Your task to perform on an android device: manage bookmarks in the chrome app Image 0: 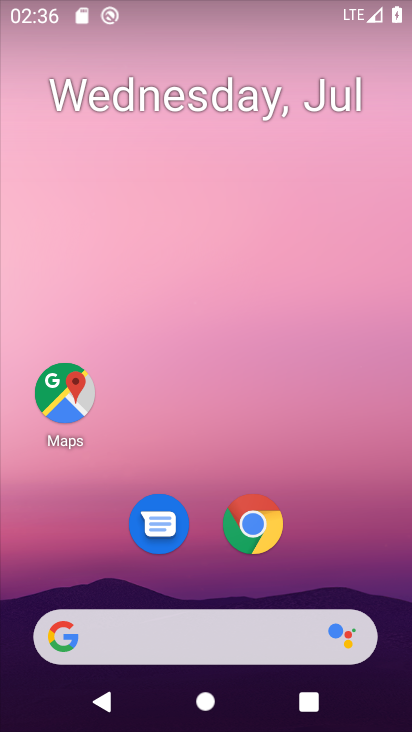
Step 0: click (263, 536)
Your task to perform on an android device: manage bookmarks in the chrome app Image 1: 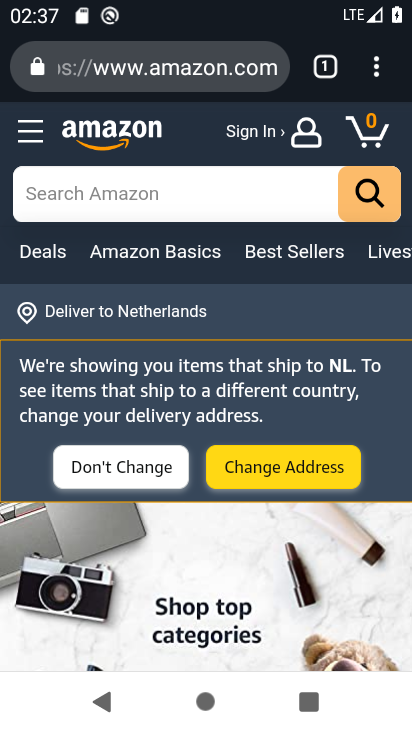
Step 1: click (373, 70)
Your task to perform on an android device: manage bookmarks in the chrome app Image 2: 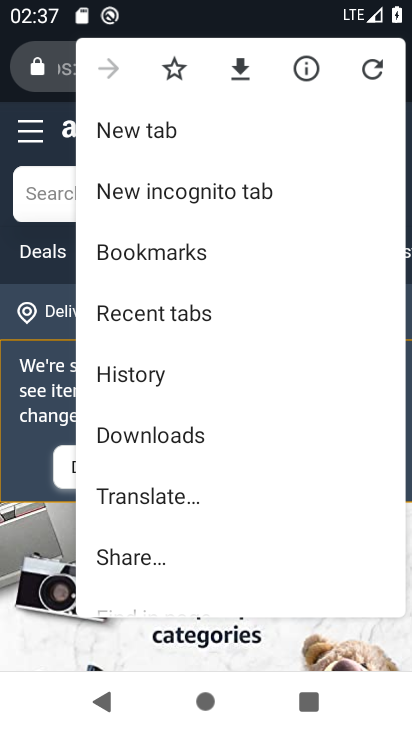
Step 2: click (194, 257)
Your task to perform on an android device: manage bookmarks in the chrome app Image 3: 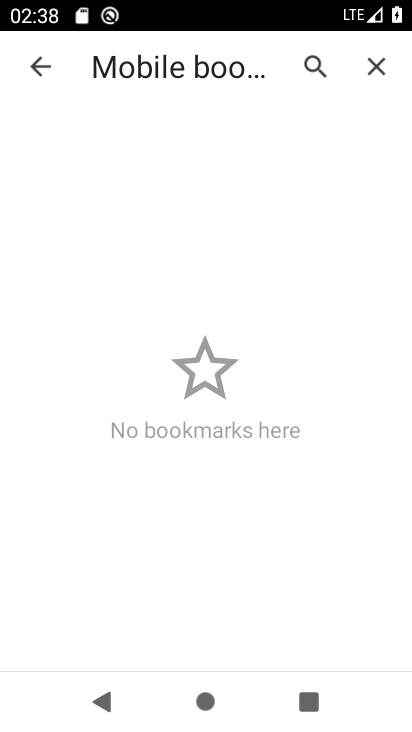
Step 3: task complete